Your task to perform on an android device: Open privacy settings Image 0: 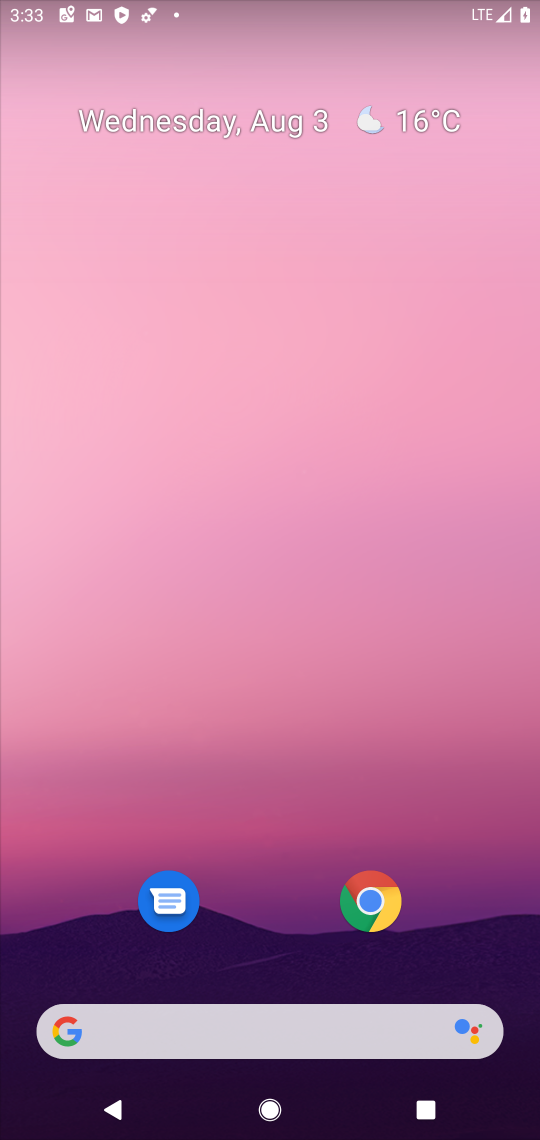
Step 0: drag from (269, 956) to (349, 308)
Your task to perform on an android device: Open privacy settings Image 1: 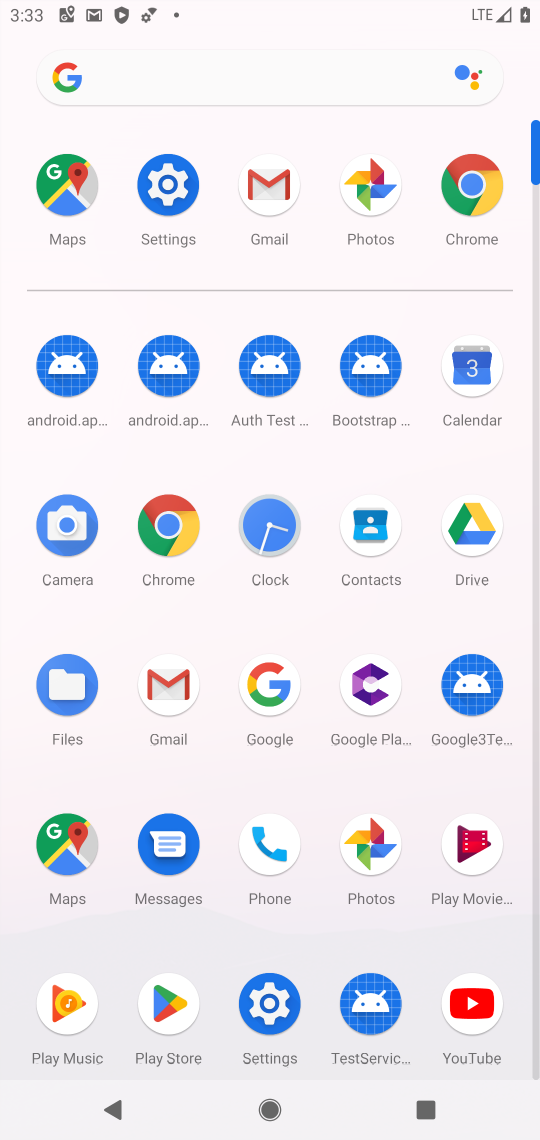
Step 1: click (180, 159)
Your task to perform on an android device: Open privacy settings Image 2: 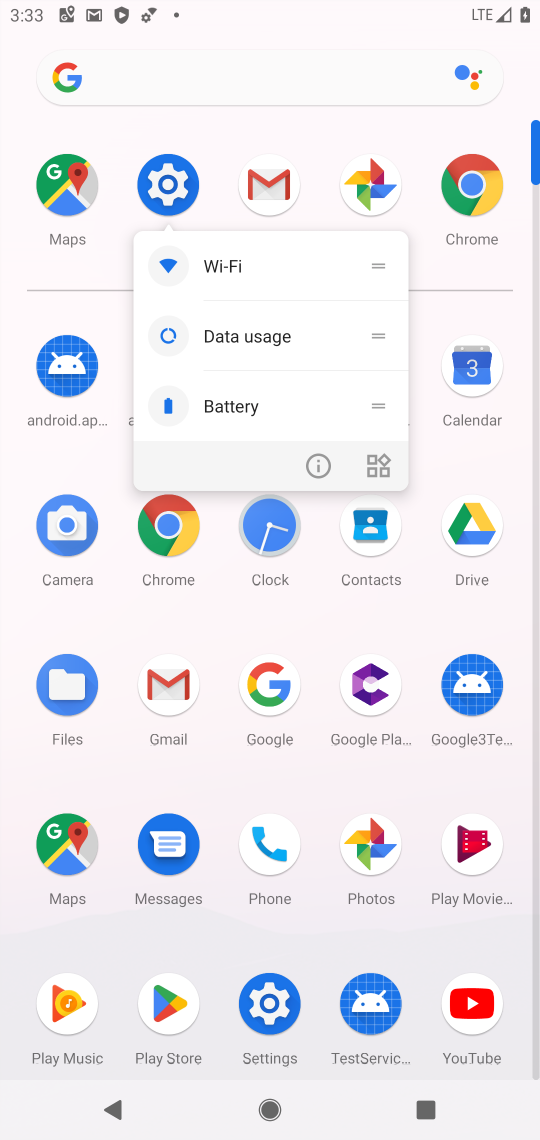
Step 2: click (174, 179)
Your task to perform on an android device: Open privacy settings Image 3: 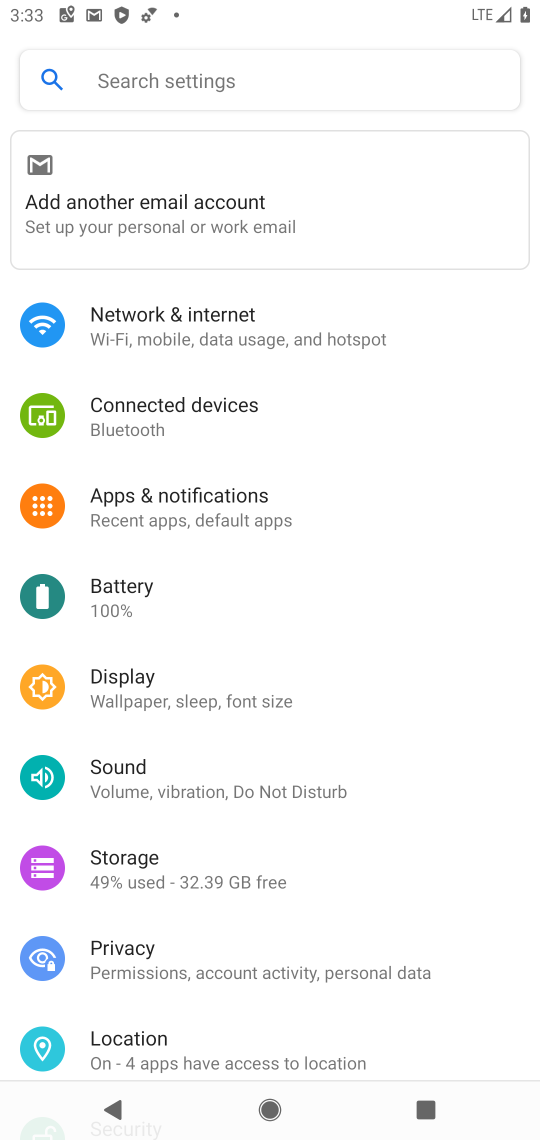
Step 3: click (204, 943)
Your task to perform on an android device: Open privacy settings Image 4: 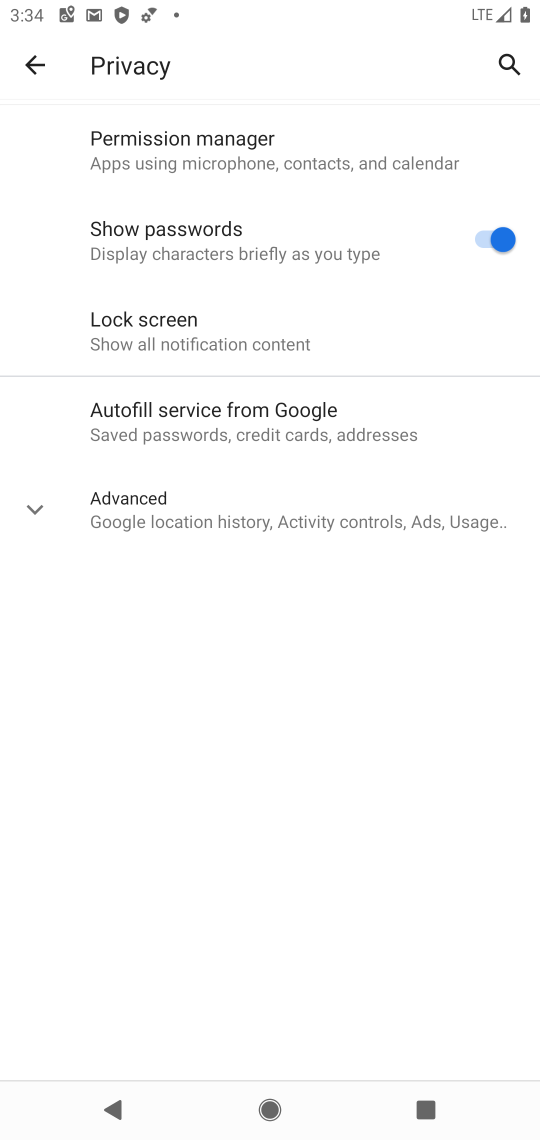
Step 4: task complete